Your task to perform on an android device: What's the news in Malaysia? Image 0: 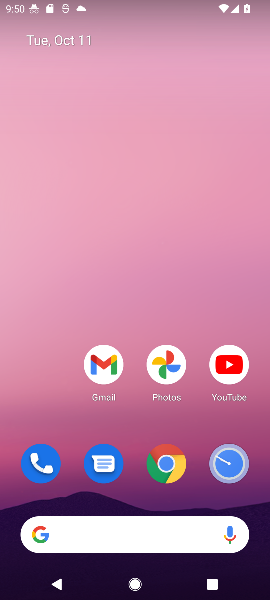
Step 0: drag from (115, 506) to (115, 292)
Your task to perform on an android device: What's the news in Malaysia? Image 1: 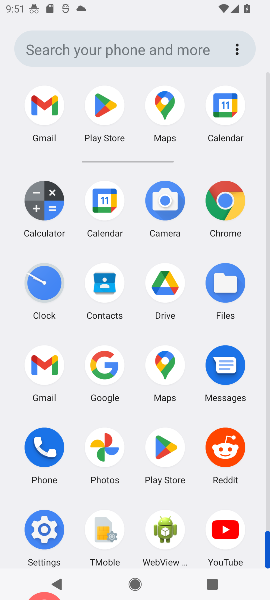
Step 1: click (105, 354)
Your task to perform on an android device: What's the news in Malaysia? Image 2: 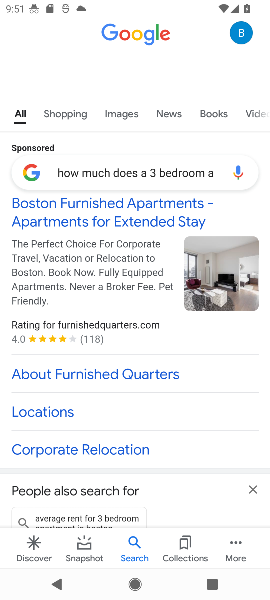
Step 2: click (140, 167)
Your task to perform on an android device: What's the news in Malaysia? Image 3: 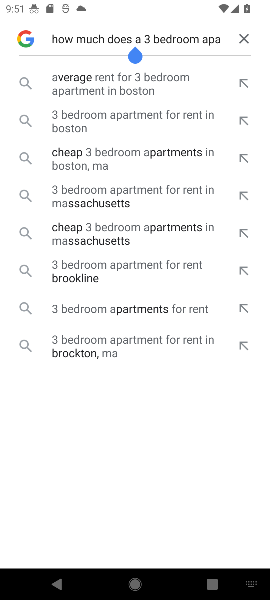
Step 3: click (239, 31)
Your task to perform on an android device: What's the news in Malaysia? Image 4: 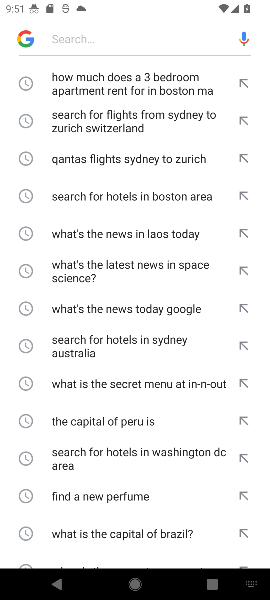
Step 4: click (112, 30)
Your task to perform on an android device: What's the news in Malaysia? Image 5: 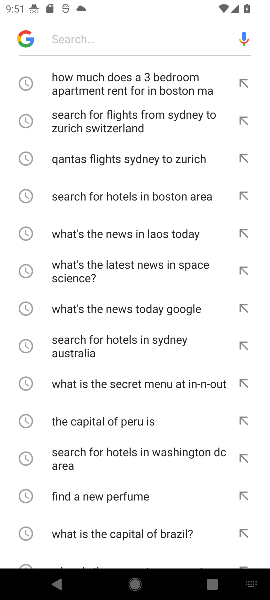
Step 5: type "What's the news in Malaysia? "
Your task to perform on an android device: What's the news in Malaysia? Image 6: 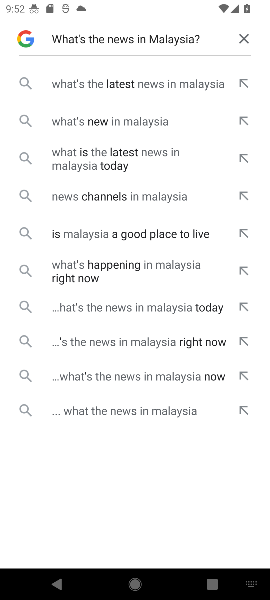
Step 6: click (98, 80)
Your task to perform on an android device: What's the news in Malaysia? Image 7: 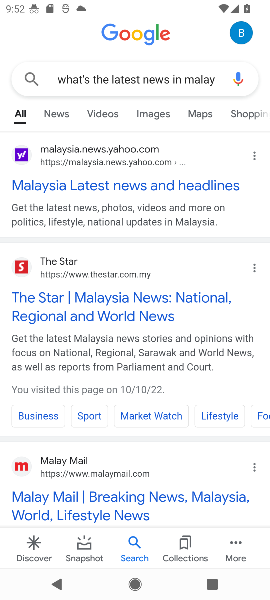
Step 7: click (101, 182)
Your task to perform on an android device: What's the news in Malaysia? Image 8: 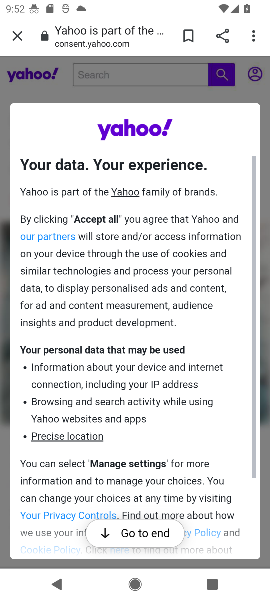
Step 8: drag from (131, 473) to (167, 134)
Your task to perform on an android device: What's the news in Malaysia? Image 9: 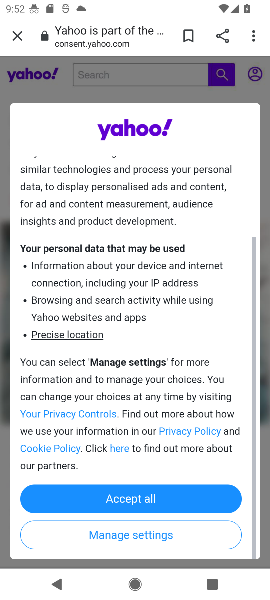
Step 9: click (151, 492)
Your task to perform on an android device: What's the news in Malaysia? Image 10: 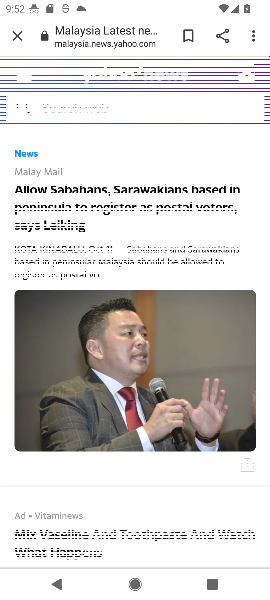
Step 10: task complete